Your task to perform on an android device: toggle wifi Image 0: 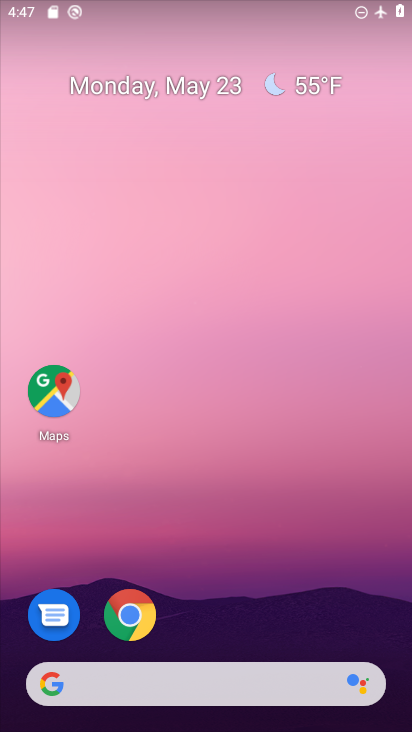
Step 0: drag from (366, 623) to (352, 240)
Your task to perform on an android device: toggle wifi Image 1: 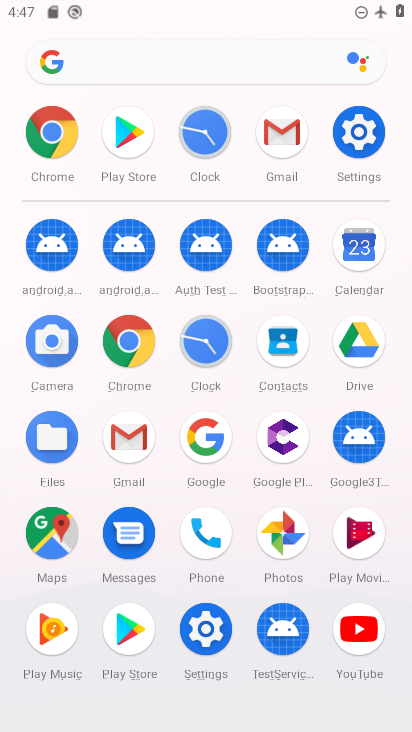
Step 1: click (211, 642)
Your task to perform on an android device: toggle wifi Image 2: 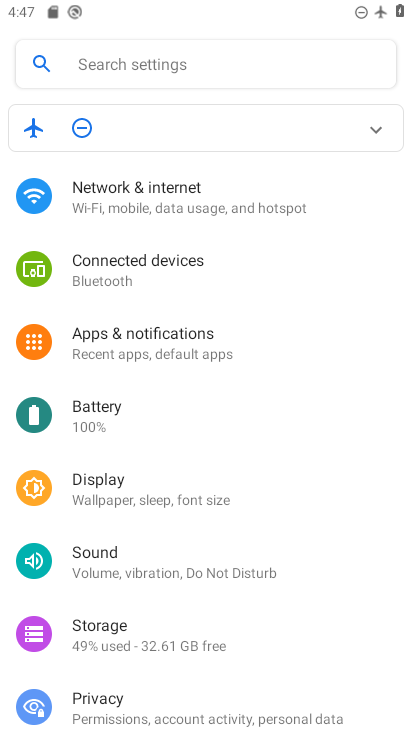
Step 2: drag from (352, 617) to (369, 486)
Your task to perform on an android device: toggle wifi Image 3: 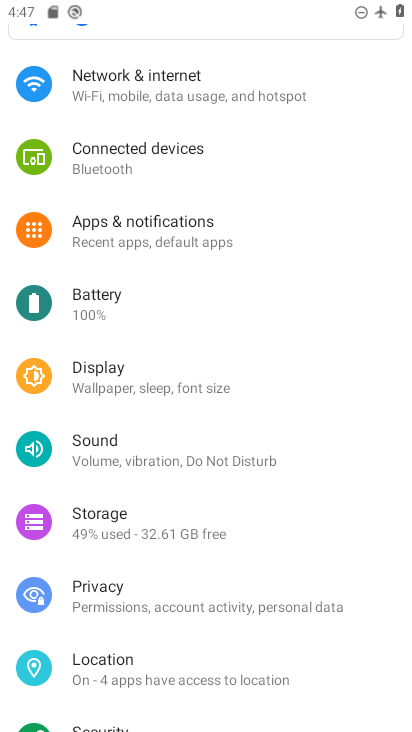
Step 3: drag from (362, 658) to (369, 547)
Your task to perform on an android device: toggle wifi Image 4: 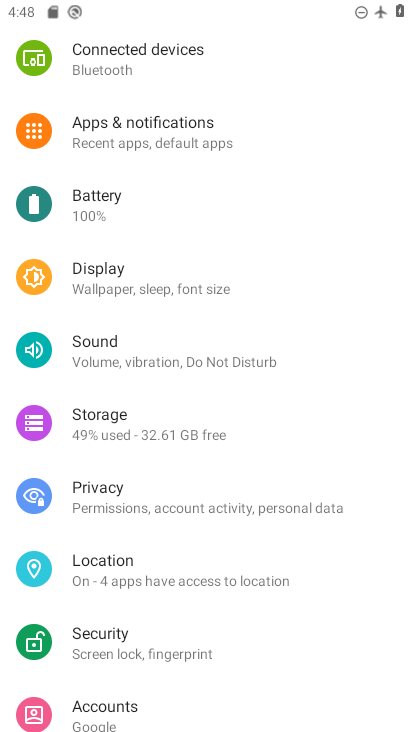
Step 4: drag from (350, 663) to (349, 524)
Your task to perform on an android device: toggle wifi Image 5: 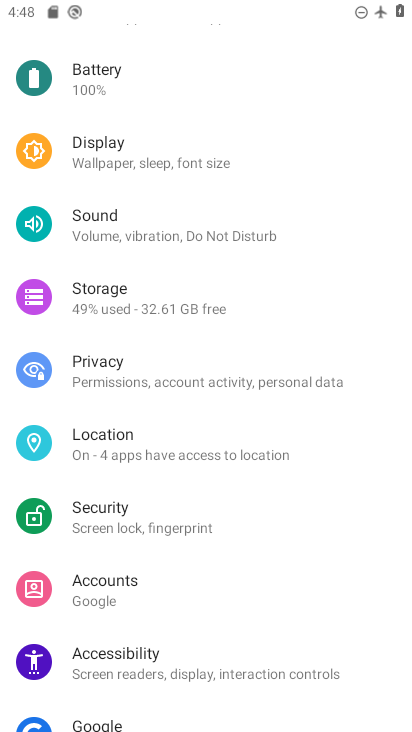
Step 5: drag from (361, 673) to (361, 490)
Your task to perform on an android device: toggle wifi Image 6: 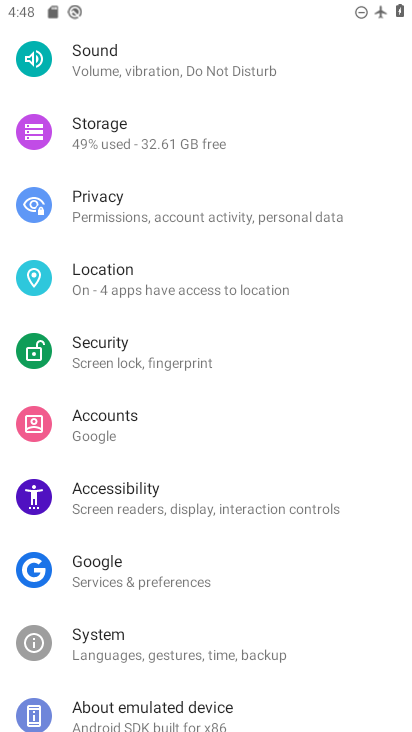
Step 6: drag from (369, 668) to (358, 532)
Your task to perform on an android device: toggle wifi Image 7: 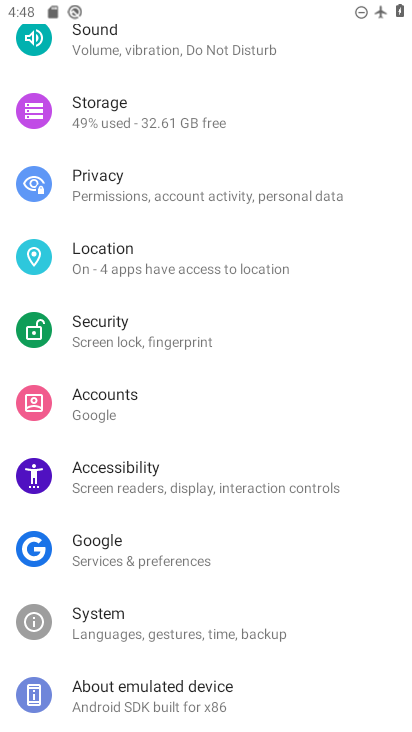
Step 7: drag from (353, 461) to (354, 550)
Your task to perform on an android device: toggle wifi Image 8: 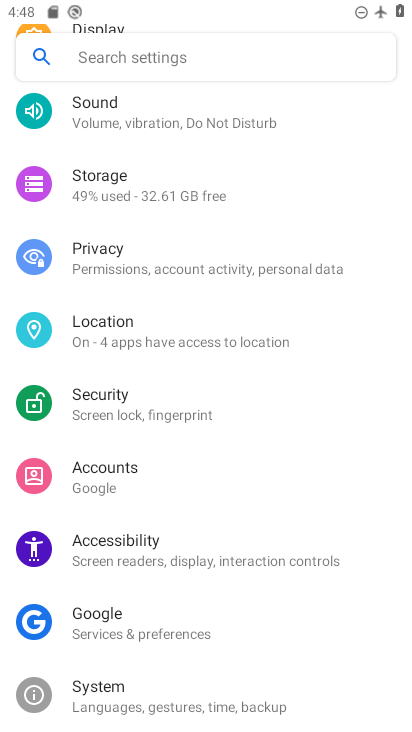
Step 8: drag from (354, 441) to (345, 585)
Your task to perform on an android device: toggle wifi Image 9: 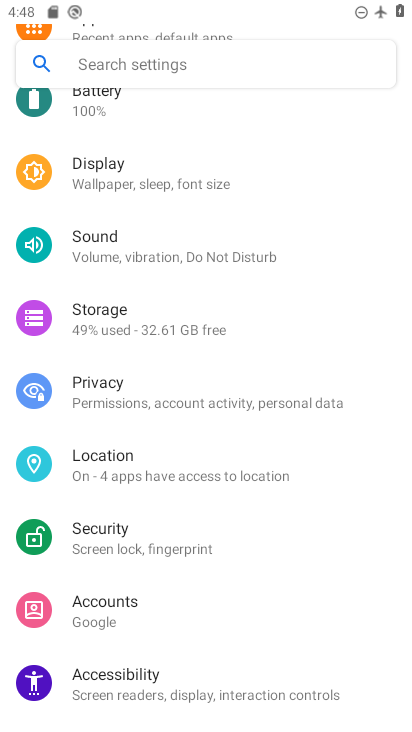
Step 9: drag from (345, 450) to (347, 550)
Your task to perform on an android device: toggle wifi Image 10: 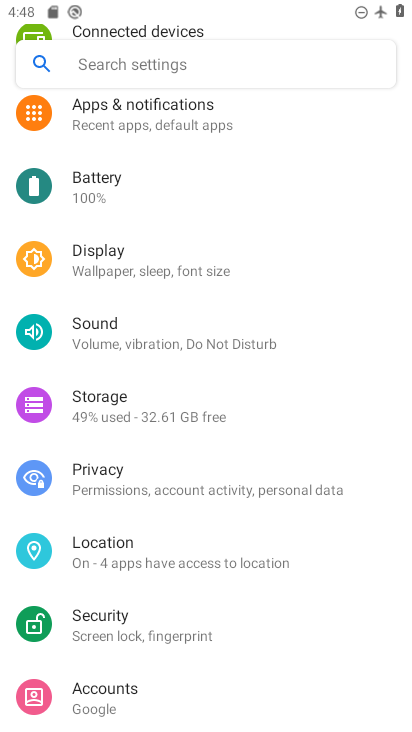
Step 10: drag from (346, 438) to (341, 543)
Your task to perform on an android device: toggle wifi Image 11: 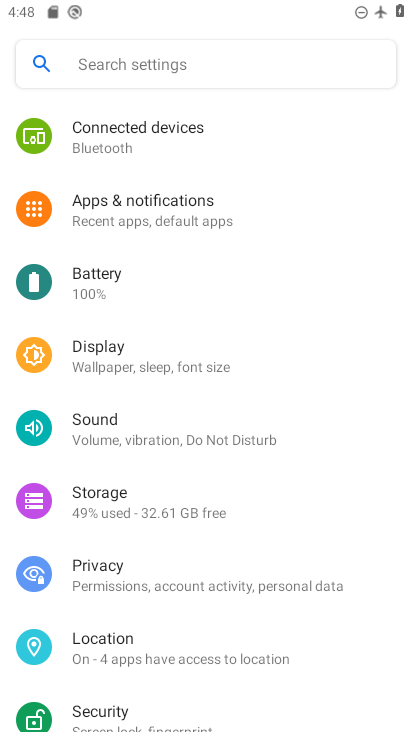
Step 11: drag from (331, 417) to (332, 498)
Your task to perform on an android device: toggle wifi Image 12: 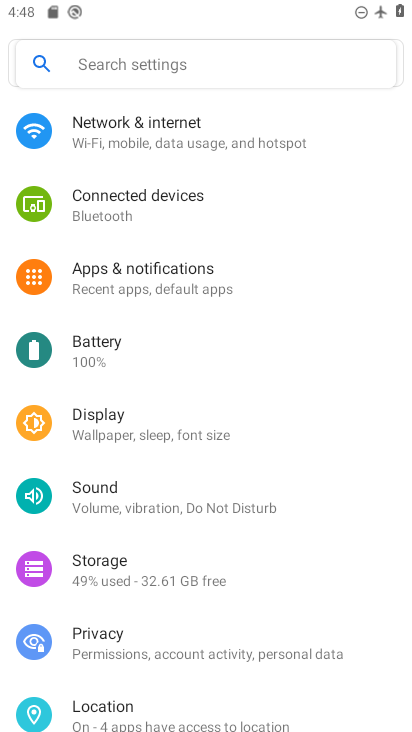
Step 12: drag from (327, 407) to (330, 495)
Your task to perform on an android device: toggle wifi Image 13: 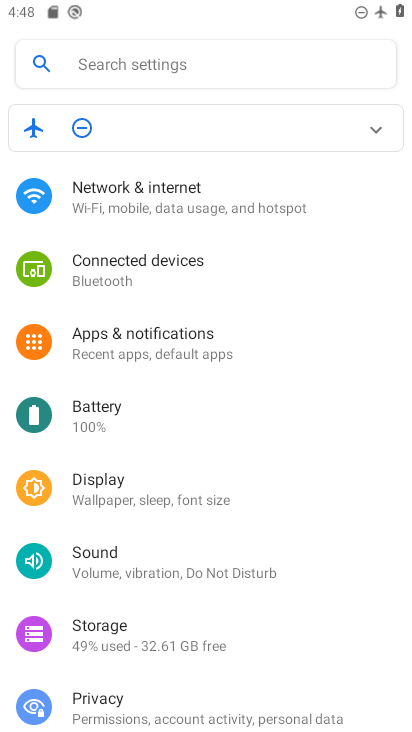
Step 13: drag from (329, 400) to (326, 525)
Your task to perform on an android device: toggle wifi Image 14: 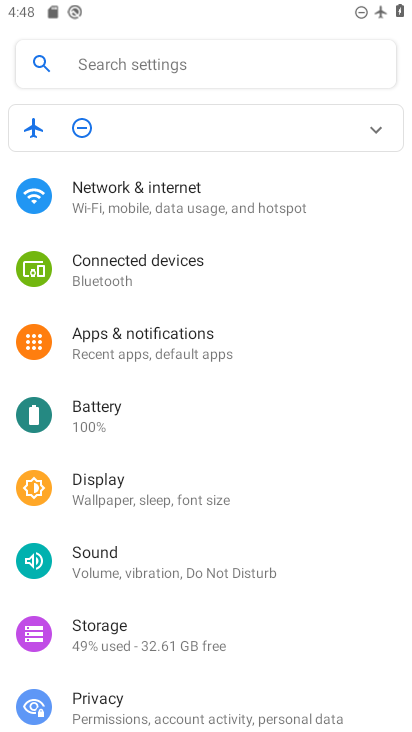
Step 14: click (283, 201)
Your task to perform on an android device: toggle wifi Image 15: 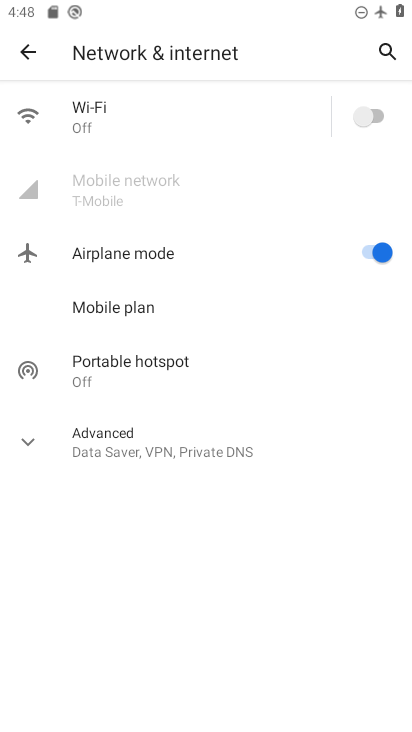
Step 15: click (133, 109)
Your task to perform on an android device: toggle wifi Image 16: 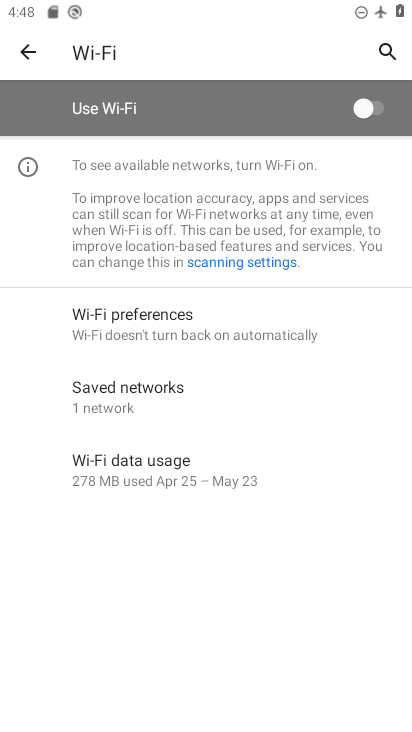
Step 16: click (365, 114)
Your task to perform on an android device: toggle wifi Image 17: 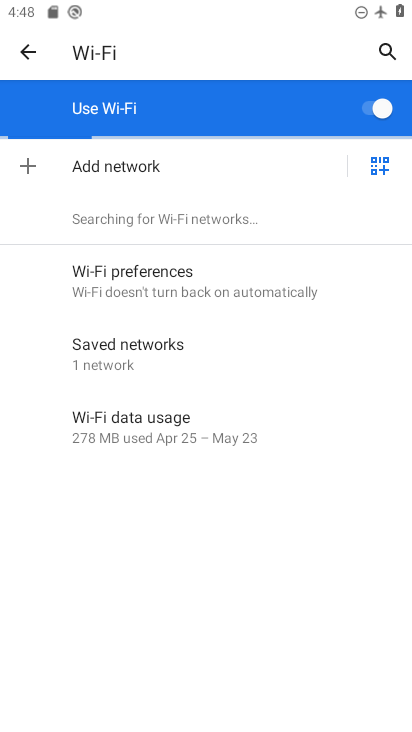
Step 17: task complete